Your task to perform on an android device: Do I have any events tomorrow? Image 0: 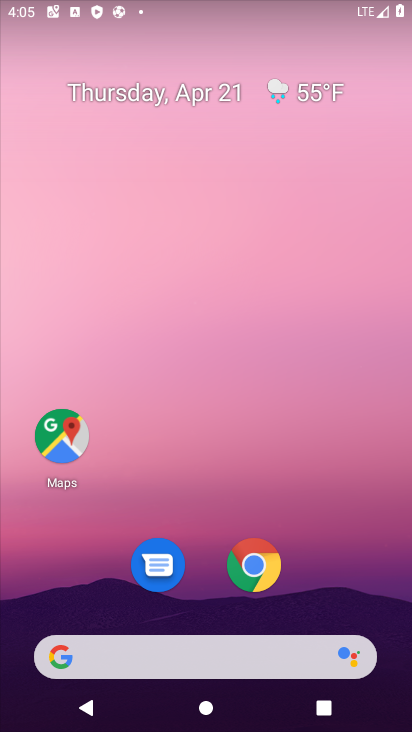
Step 0: drag from (357, 561) to (336, 78)
Your task to perform on an android device: Do I have any events tomorrow? Image 1: 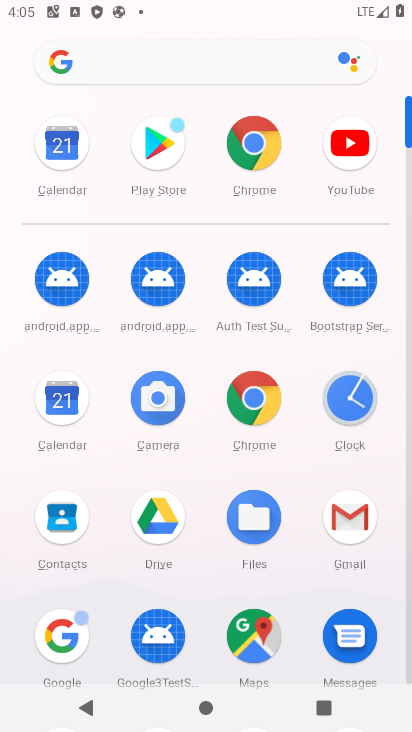
Step 1: click (61, 137)
Your task to perform on an android device: Do I have any events tomorrow? Image 2: 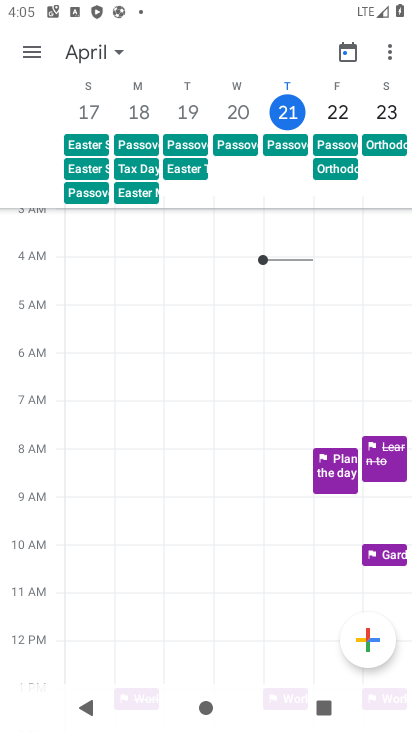
Step 2: click (330, 468)
Your task to perform on an android device: Do I have any events tomorrow? Image 3: 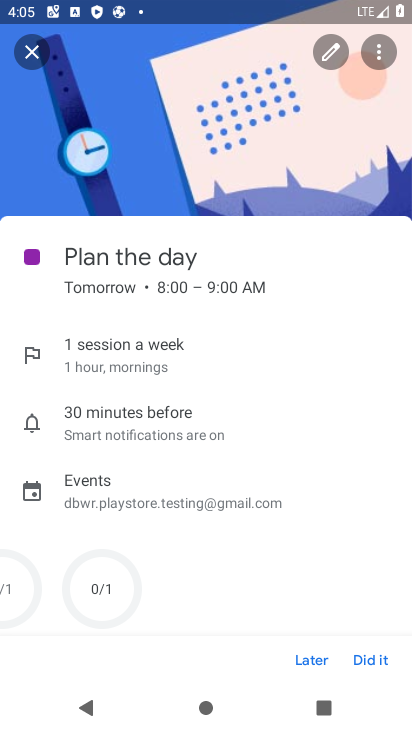
Step 3: task complete